Your task to perform on an android device: Go to wifi settings Image 0: 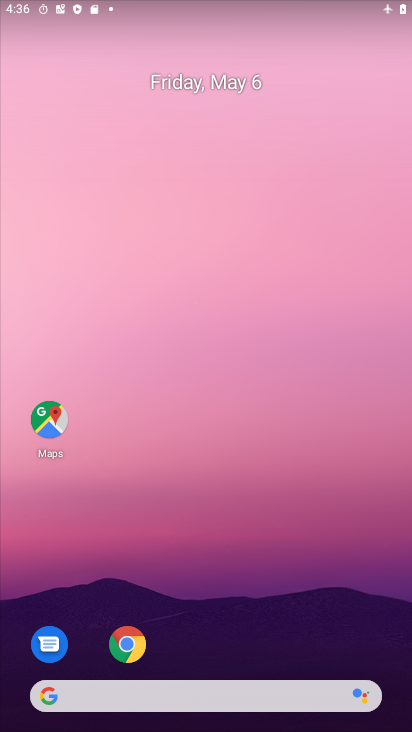
Step 0: drag from (270, 635) to (164, 104)
Your task to perform on an android device: Go to wifi settings Image 1: 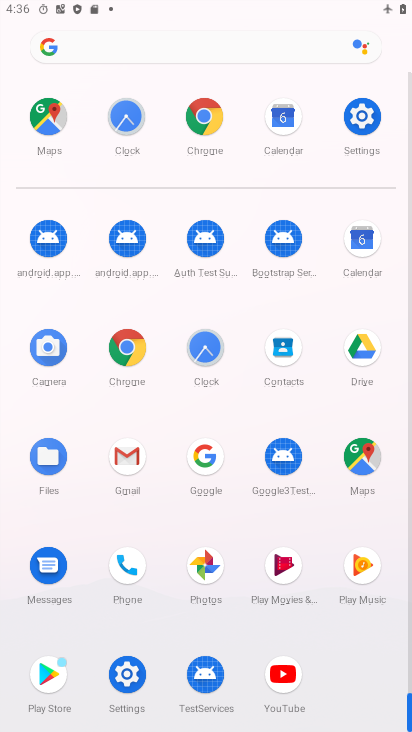
Step 1: click (363, 125)
Your task to perform on an android device: Go to wifi settings Image 2: 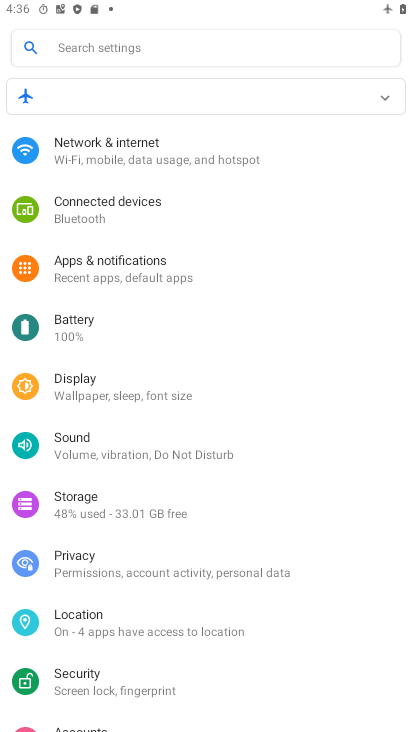
Step 2: click (129, 148)
Your task to perform on an android device: Go to wifi settings Image 3: 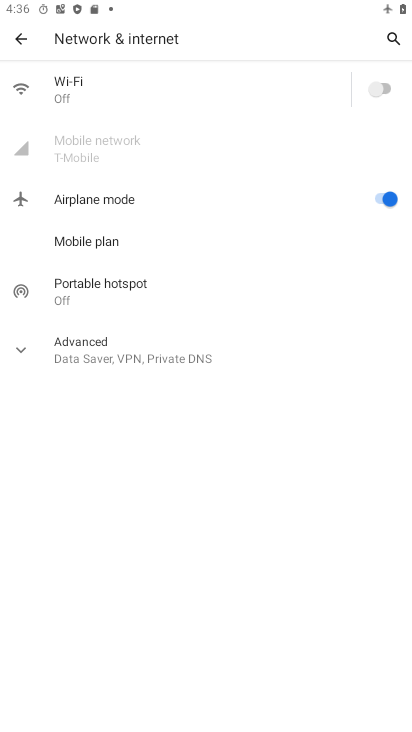
Step 3: task complete